Your task to perform on an android device: Go to CNN.com Image 0: 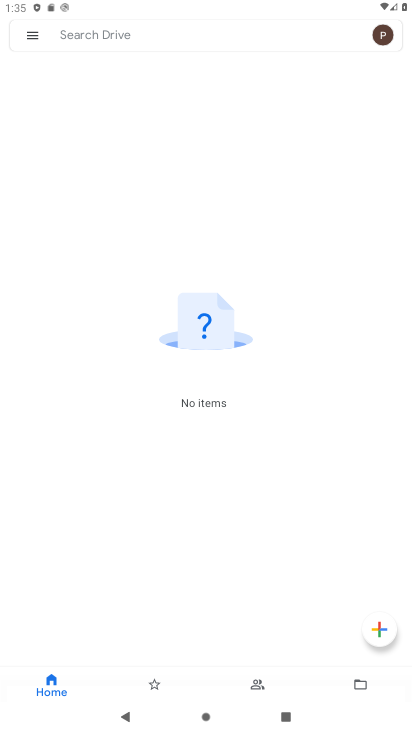
Step 0: press home button
Your task to perform on an android device: Go to CNN.com Image 1: 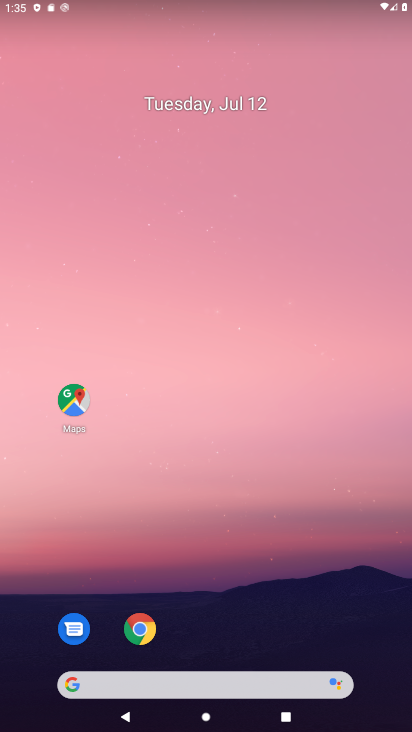
Step 1: drag from (247, 633) to (219, 109)
Your task to perform on an android device: Go to CNN.com Image 2: 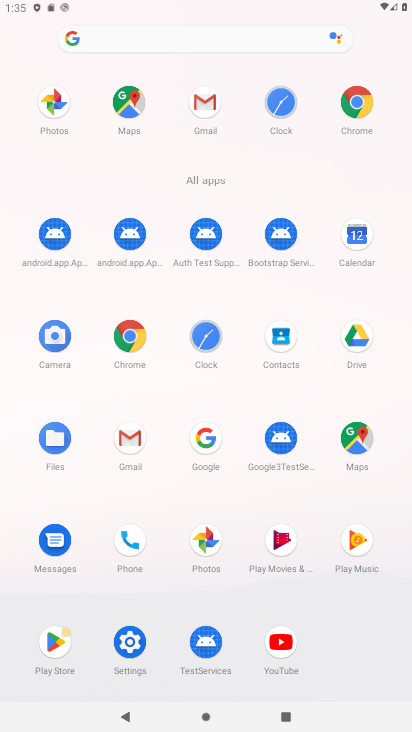
Step 2: click (358, 106)
Your task to perform on an android device: Go to CNN.com Image 3: 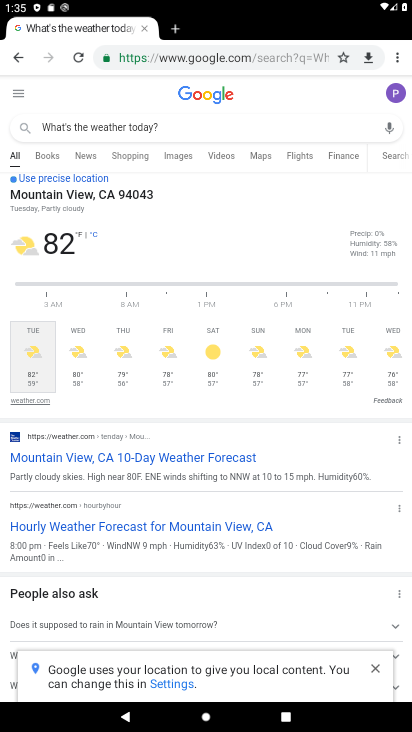
Step 3: click (186, 57)
Your task to perform on an android device: Go to CNN.com Image 4: 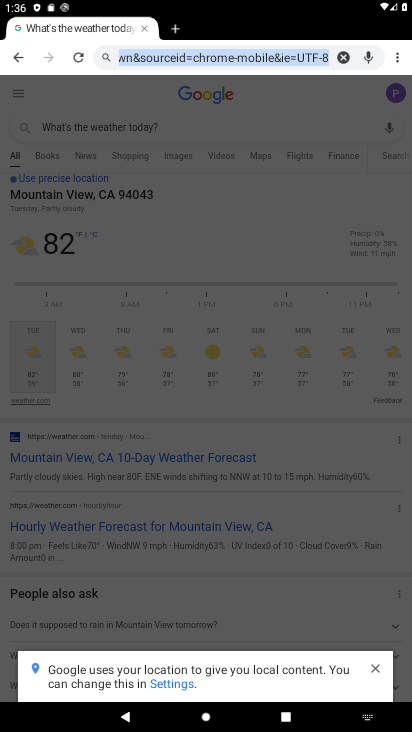
Step 4: type "cnn.com"
Your task to perform on an android device: Go to CNN.com Image 5: 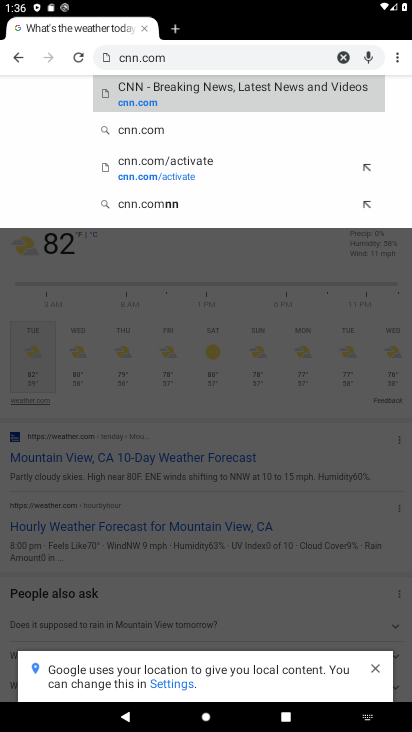
Step 5: click (194, 96)
Your task to perform on an android device: Go to CNN.com Image 6: 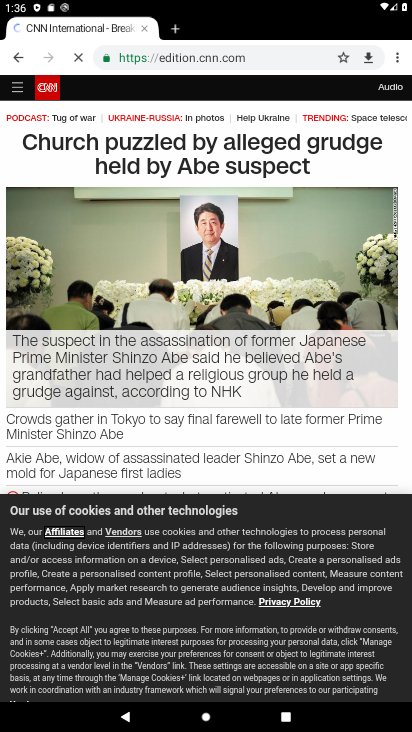
Step 6: task complete